Your task to perform on an android device: What's on my calendar today? Image 0: 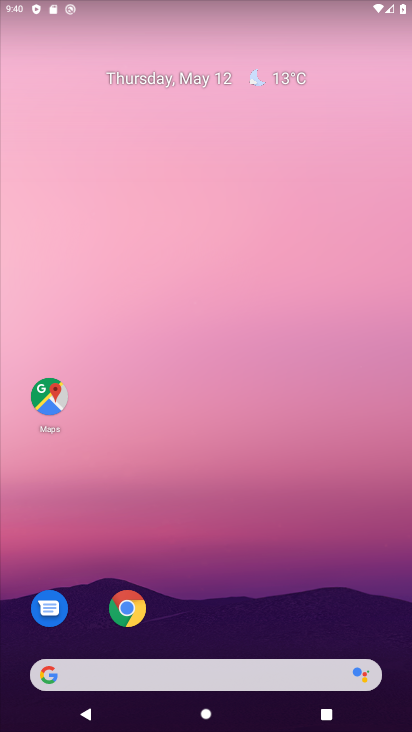
Step 0: drag from (212, 618) to (186, 168)
Your task to perform on an android device: What's on my calendar today? Image 1: 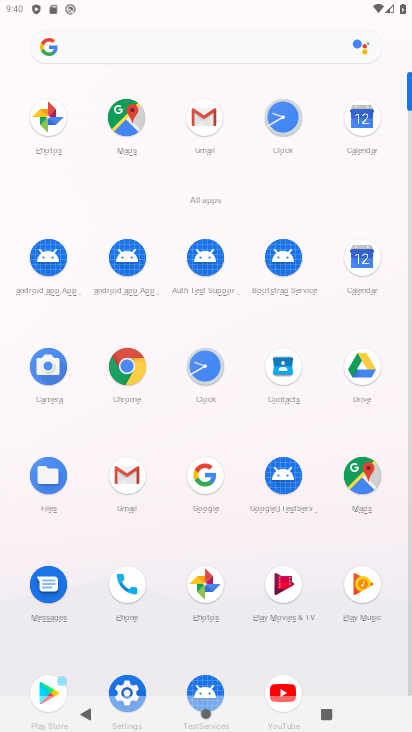
Step 1: click (364, 262)
Your task to perform on an android device: What's on my calendar today? Image 2: 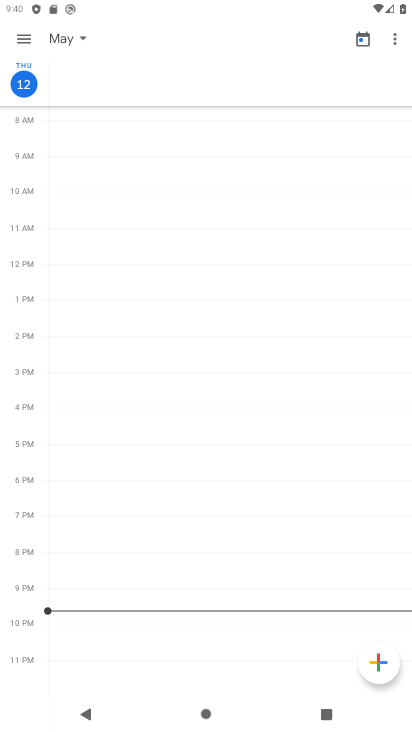
Step 2: click (77, 42)
Your task to perform on an android device: What's on my calendar today? Image 3: 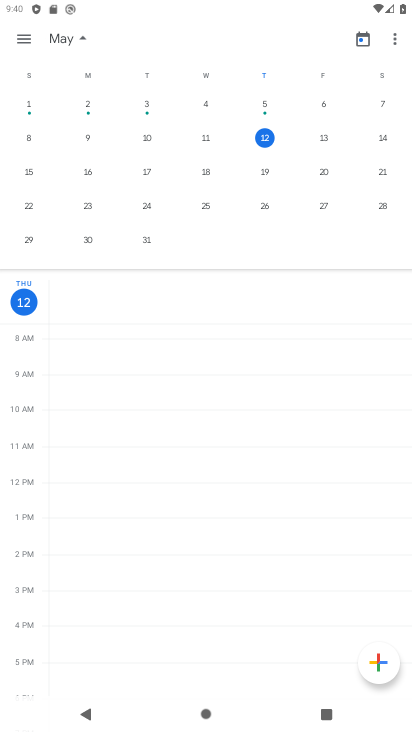
Step 3: click (265, 141)
Your task to perform on an android device: What's on my calendar today? Image 4: 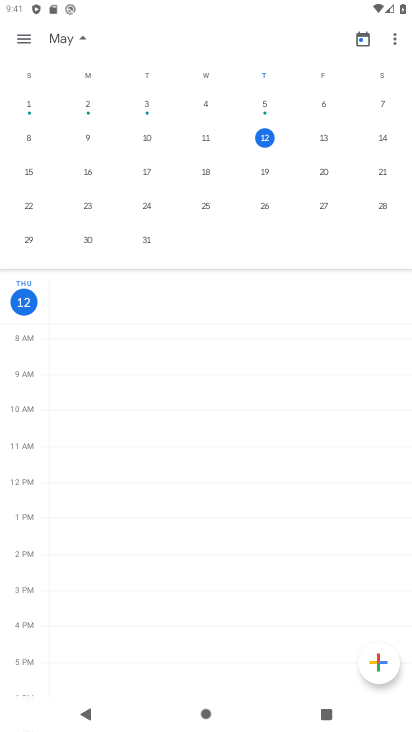
Step 4: task complete